Your task to perform on an android device: Open wifi settings Image 0: 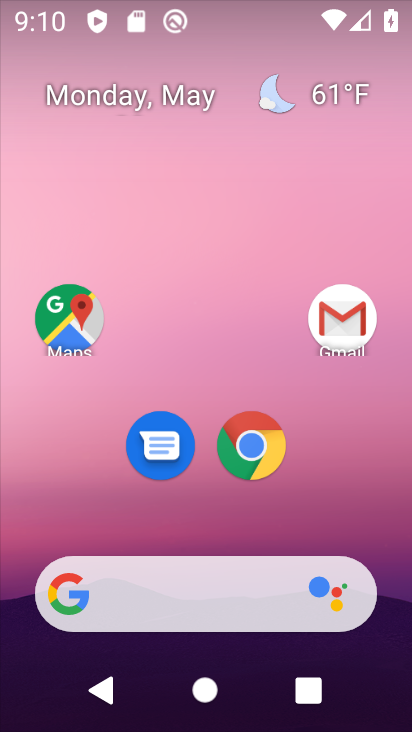
Step 0: drag from (372, 523) to (369, 119)
Your task to perform on an android device: Open wifi settings Image 1: 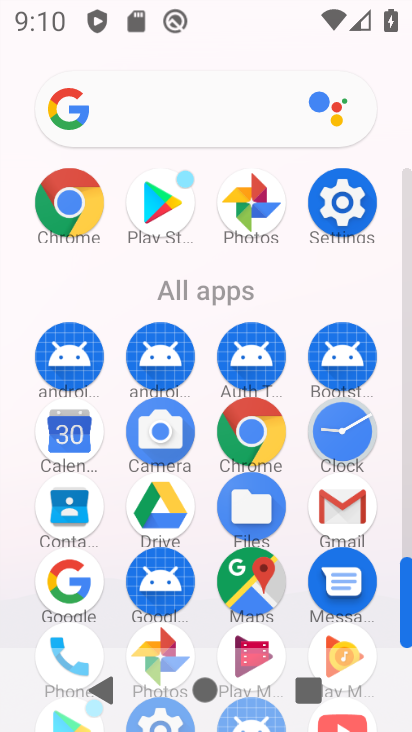
Step 1: click (356, 234)
Your task to perform on an android device: Open wifi settings Image 2: 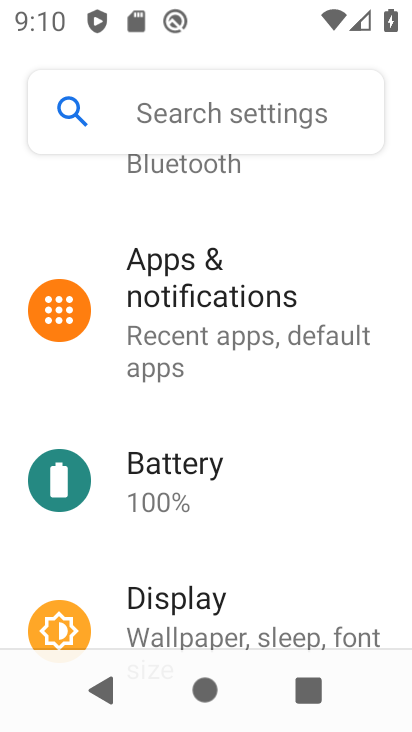
Step 2: drag from (342, 494) to (361, 374)
Your task to perform on an android device: Open wifi settings Image 3: 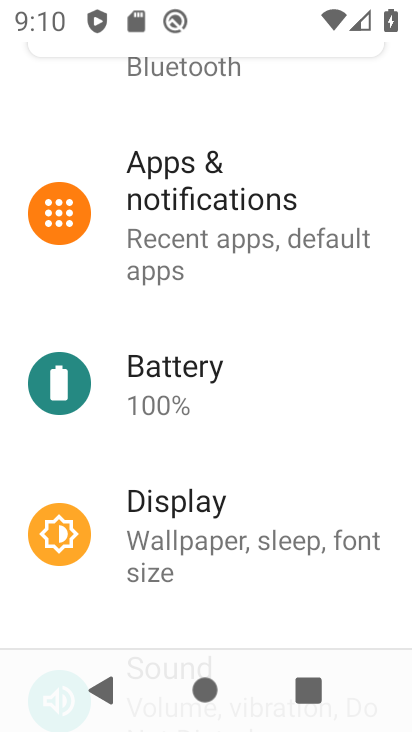
Step 3: drag from (348, 498) to (356, 336)
Your task to perform on an android device: Open wifi settings Image 4: 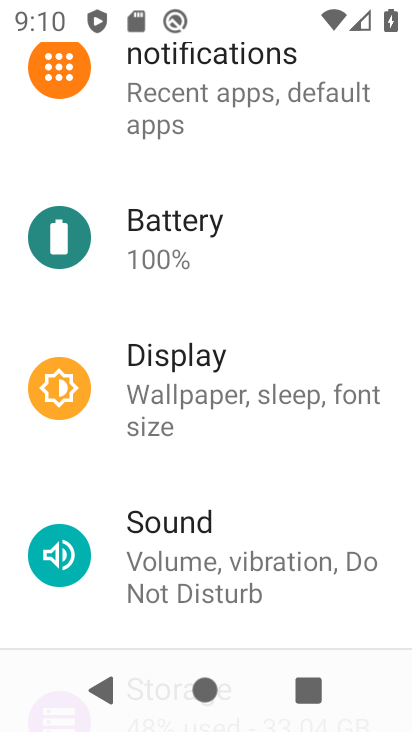
Step 4: drag from (355, 608) to (367, 493)
Your task to perform on an android device: Open wifi settings Image 5: 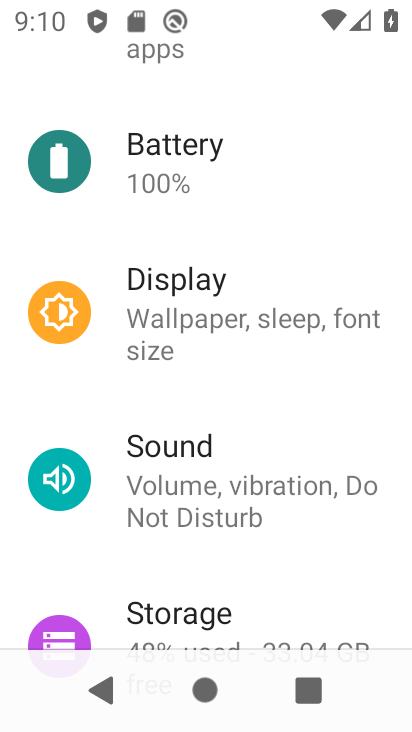
Step 5: drag from (358, 604) to (368, 517)
Your task to perform on an android device: Open wifi settings Image 6: 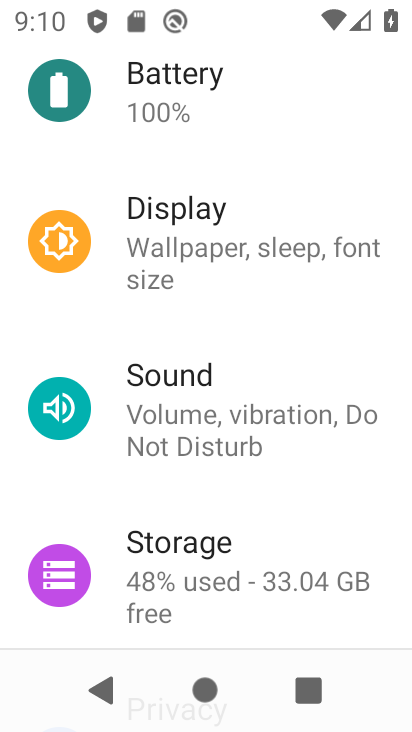
Step 6: drag from (371, 629) to (376, 517)
Your task to perform on an android device: Open wifi settings Image 7: 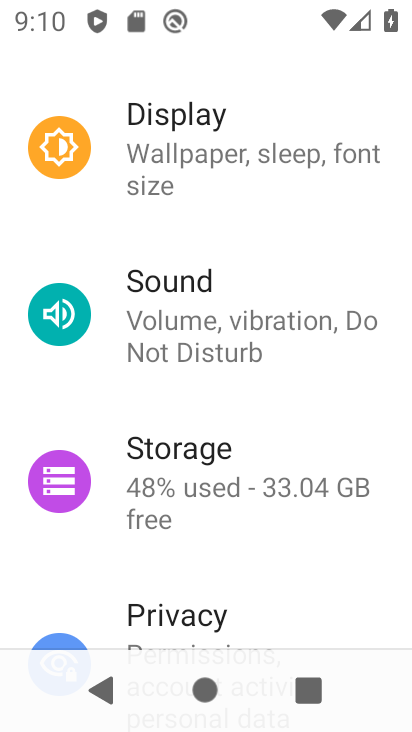
Step 7: drag from (342, 362) to (347, 452)
Your task to perform on an android device: Open wifi settings Image 8: 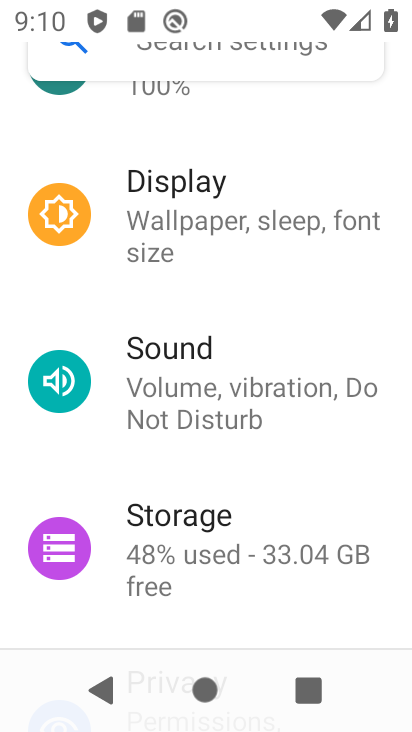
Step 8: drag from (347, 307) to (354, 412)
Your task to perform on an android device: Open wifi settings Image 9: 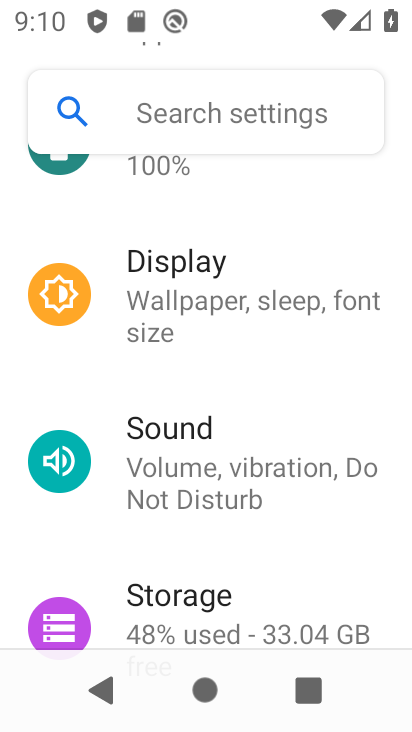
Step 9: drag from (359, 333) to (366, 422)
Your task to perform on an android device: Open wifi settings Image 10: 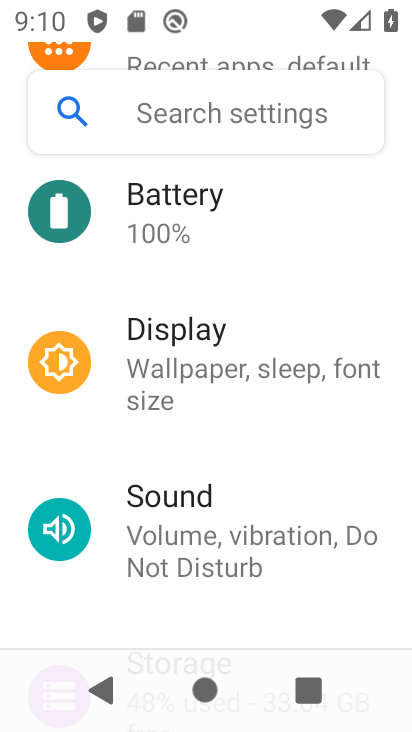
Step 10: drag from (365, 267) to (370, 381)
Your task to perform on an android device: Open wifi settings Image 11: 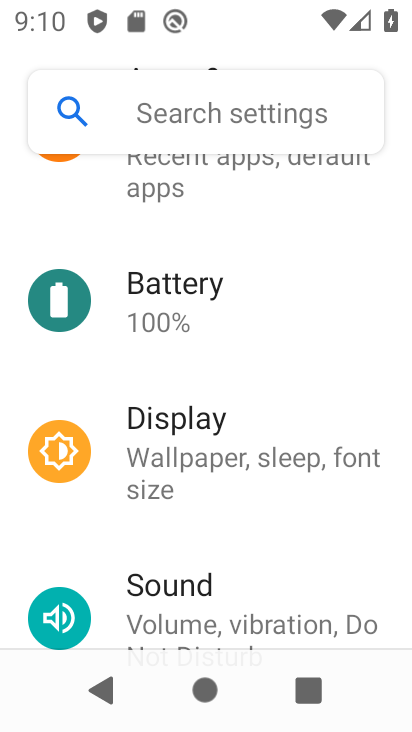
Step 11: drag from (354, 272) to (356, 441)
Your task to perform on an android device: Open wifi settings Image 12: 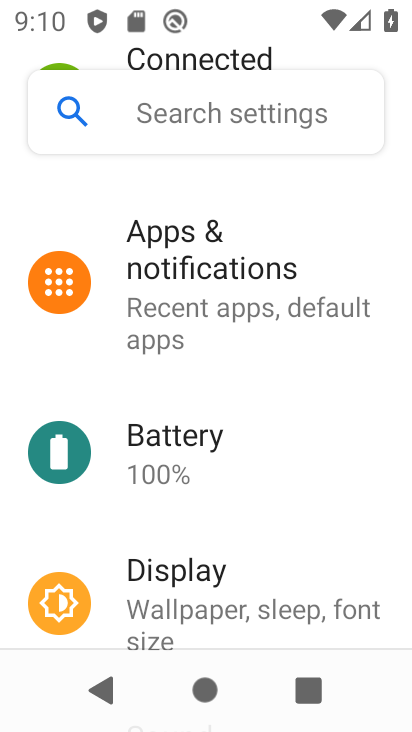
Step 12: drag from (331, 219) to (339, 428)
Your task to perform on an android device: Open wifi settings Image 13: 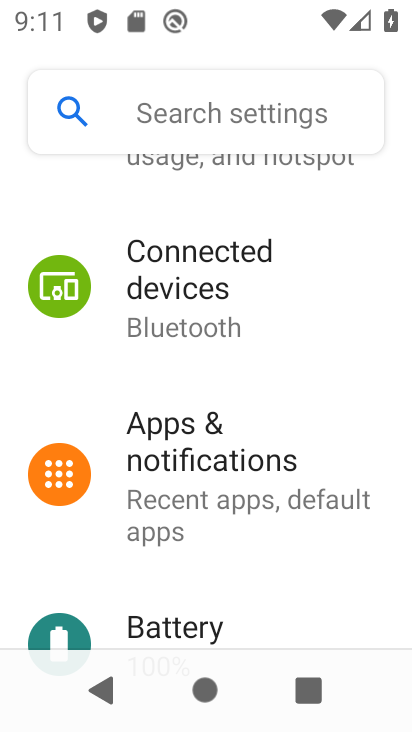
Step 13: drag from (338, 227) to (348, 378)
Your task to perform on an android device: Open wifi settings Image 14: 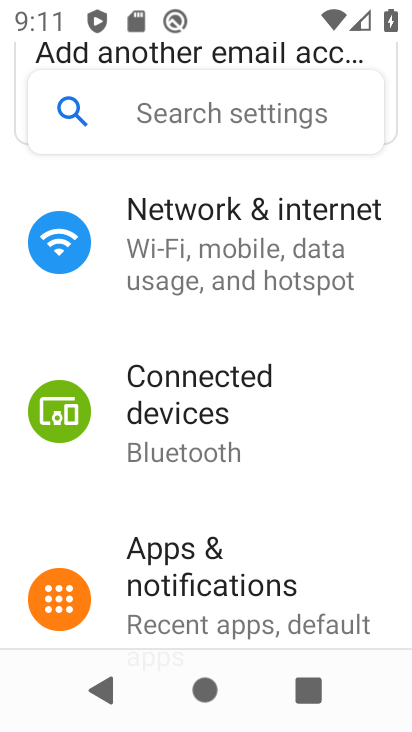
Step 14: drag from (383, 167) to (384, 349)
Your task to perform on an android device: Open wifi settings Image 15: 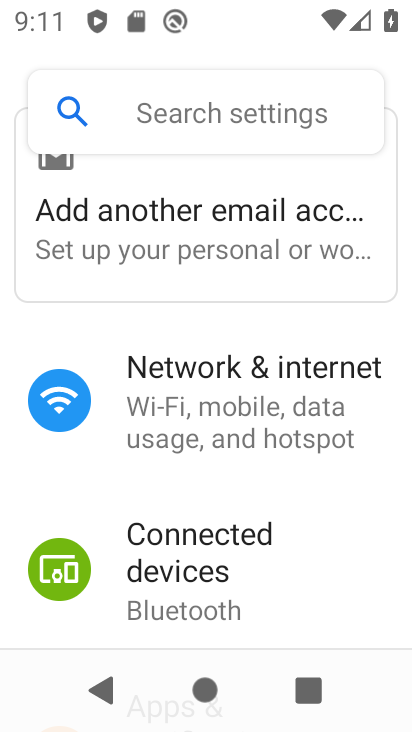
Step 15: click (243, 394)
Your task to perform on an android device: Open wifi settings Image 16: 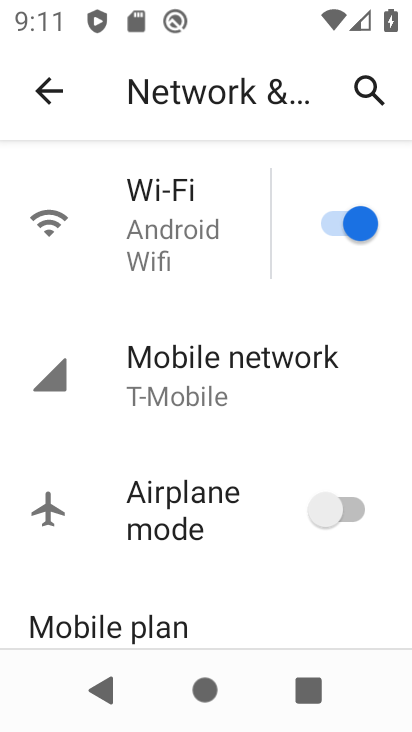
Step 16: click (184, 217)
Your task to perform on an android device: Open wifi settings Image 17: 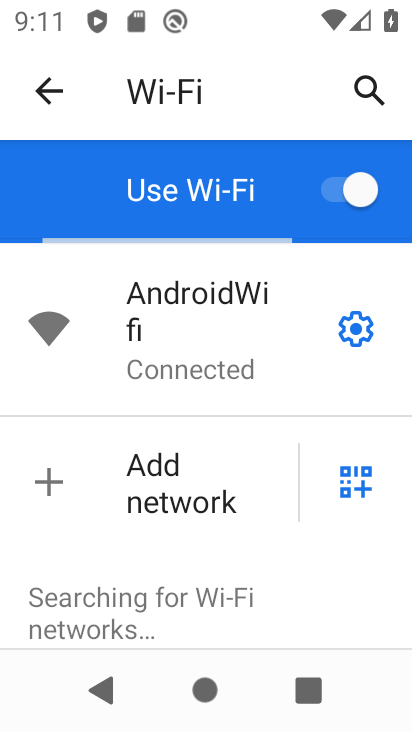
Step 17: task complete